Your task to perform on an android device: clear history in the chrome app Image 0: 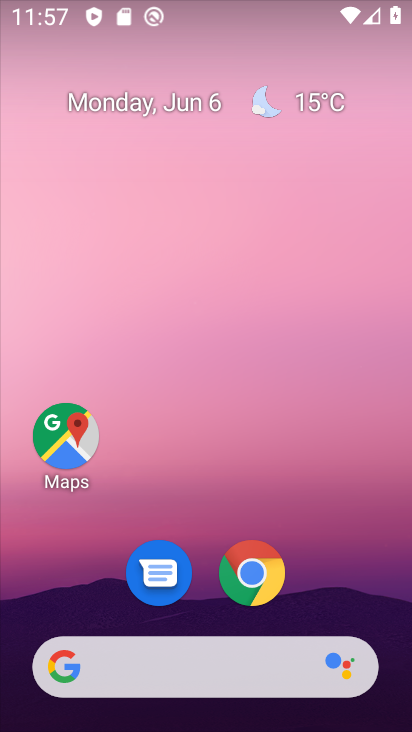
Step 0: click (242, 589)
Your task to perform on an android device: clear history in the chrome app Image 1: 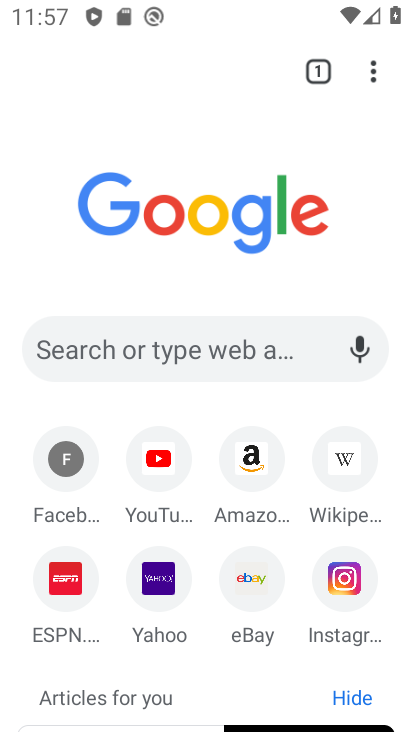
Step 1: click (368, 72)
Your task to perform on an android device: clear history in the chrome app Image 2: 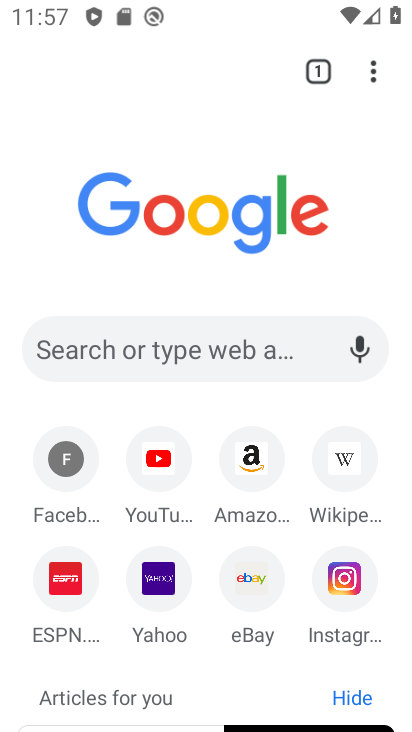
Step 2: task complete